Your task to perform on an android device: manage bookmarks in the chrome app Image 0: 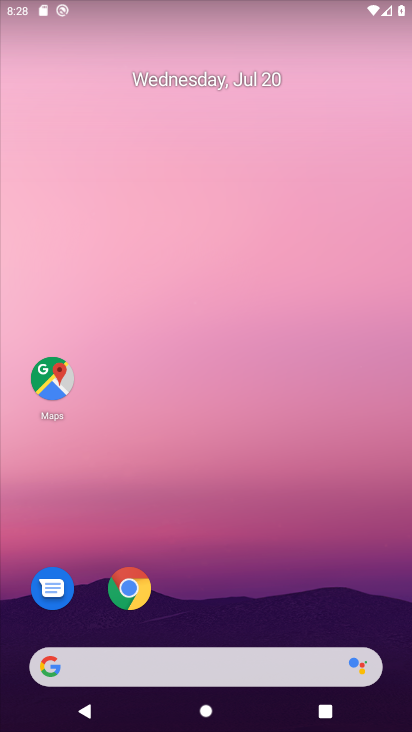
Step 0: click (127, 586)
Your task to perform on an android device: manage bookmarks in the chrome app Image 1: 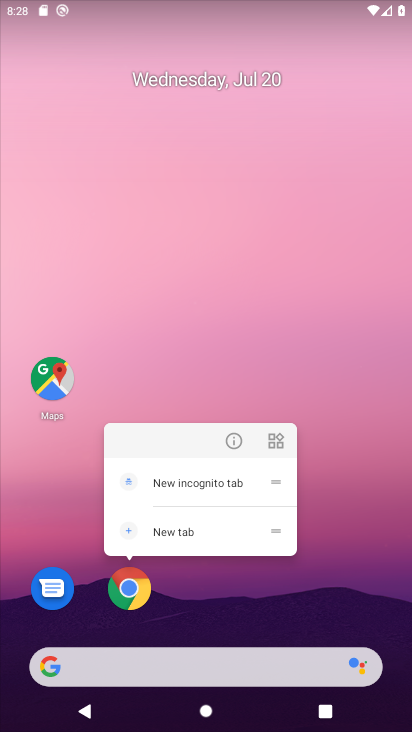
Step 1: click (129, 582)
Your task to perform on an android device: manage bookmarks in the chrome app Image 2: 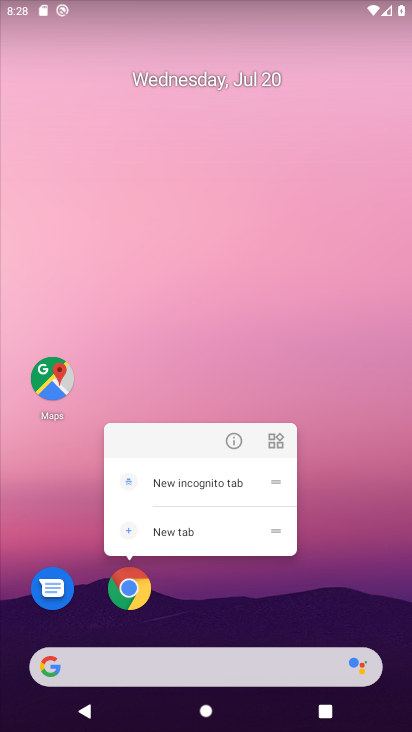
Step 2: click (139, 589)
Your task to perform on an android device: manage bookmarks in the chrome app Image 3: 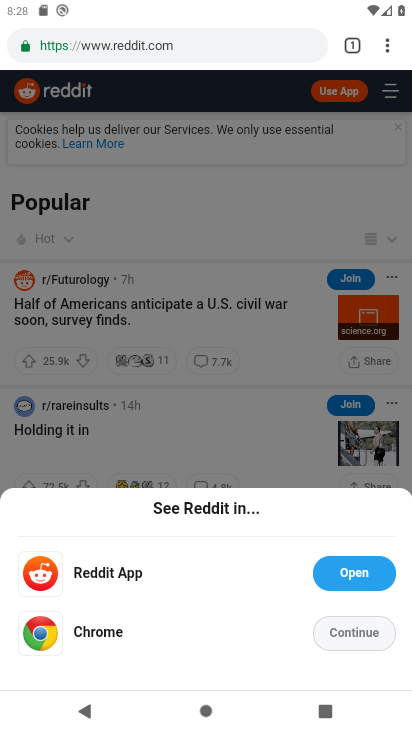
Step 3: click (353, 638)
Your task to perform on an android device: manage bookmarks in the chrome app Image 4: 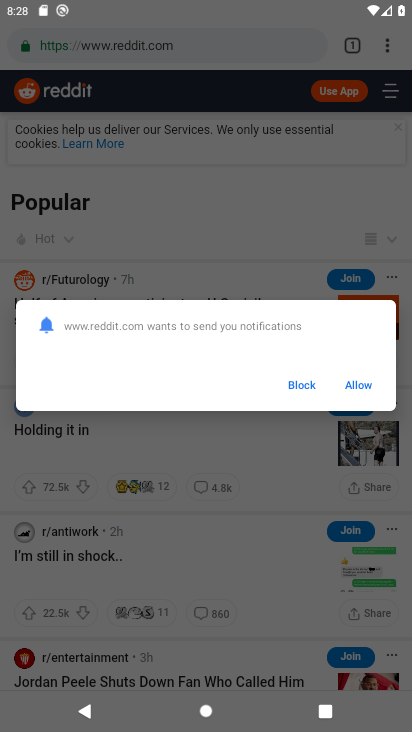
Step 4: click (361, 387)
Your task to perform on an android device: manage bookmarks in the chrome app Image 5: 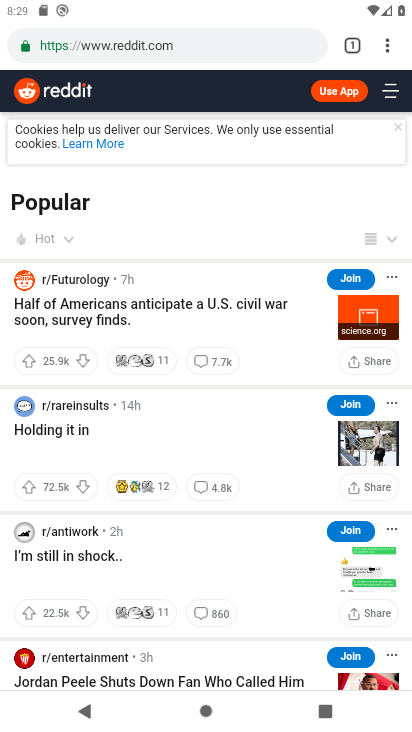
Step 5: click (383, 40)
Your task to perform on an android device: manage bookmarks in the chrome app Image 6: 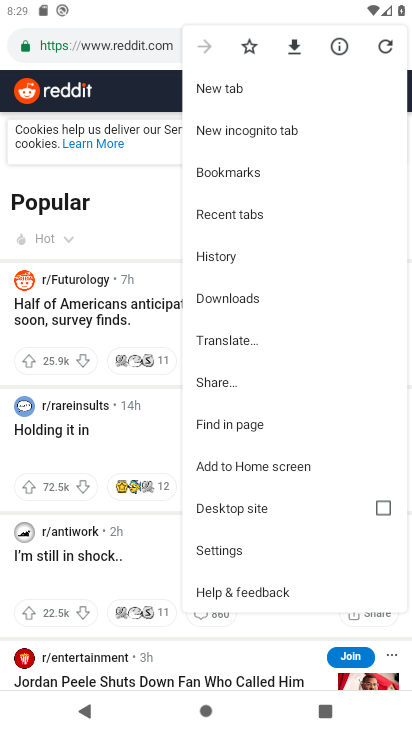
Step 6: click (245, 174)
Your task to perform on an android device: manage bookmarks in the chrome app Image 7: 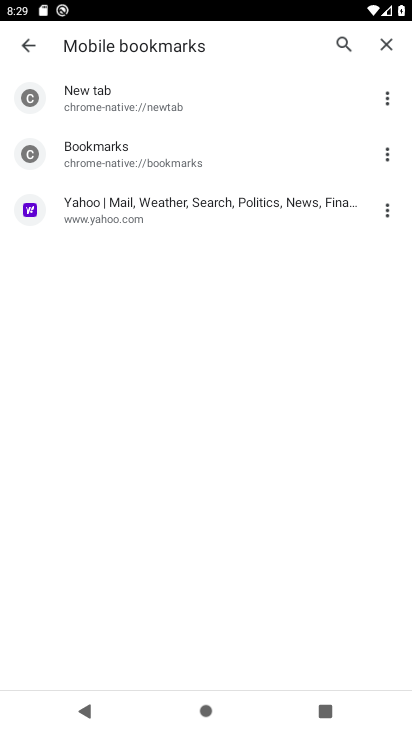
Step 7: click (389, 205)
Your task to perform on an android device: manage bookmarks in the chrome app Image 8: 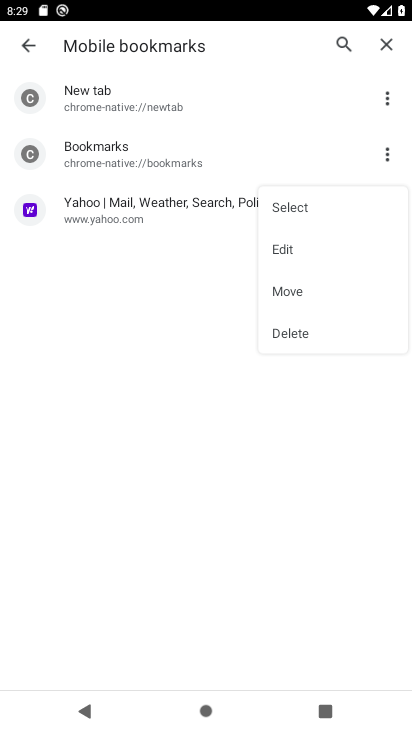
Step 8: click (296, 336)
Your task to perform on an android device: manage bookmarks in the chrome app Image 9: 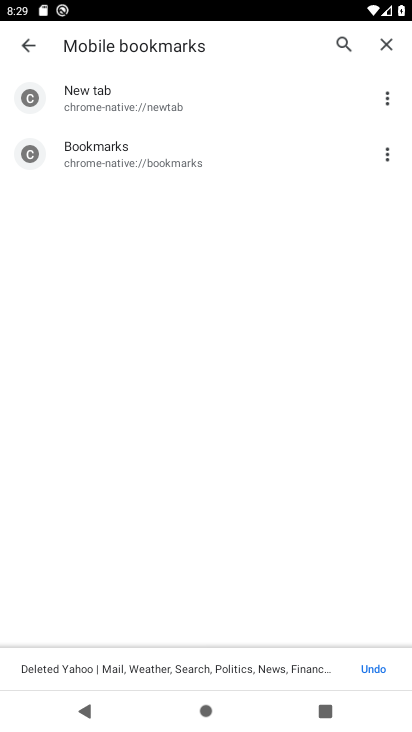
Step 9: task complete